Your task to perform on an android device: Open the stopwatch Image 0: 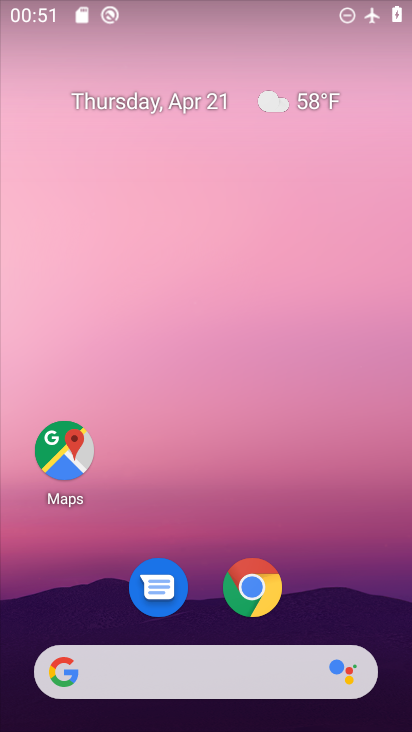
Step 0: drag from (208, 583) to (312, 47)
Your task to perform on an android device: Open the stopwatch Image 1: 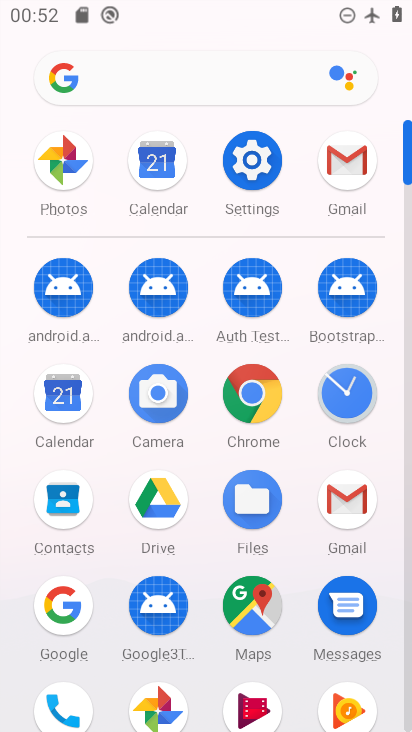
Step 1: click (353, 402)
Your task to perform on an android device: Open the stopwatch Image 2: 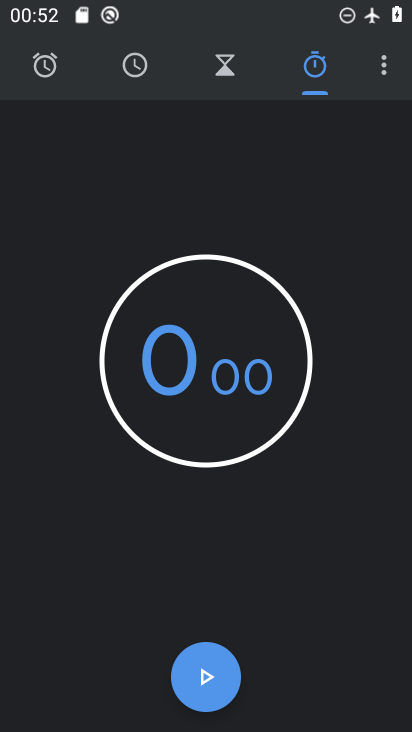
Step 2: click (217, 664)
Your task to perform on an android device: Open the stopwatch Image 3: 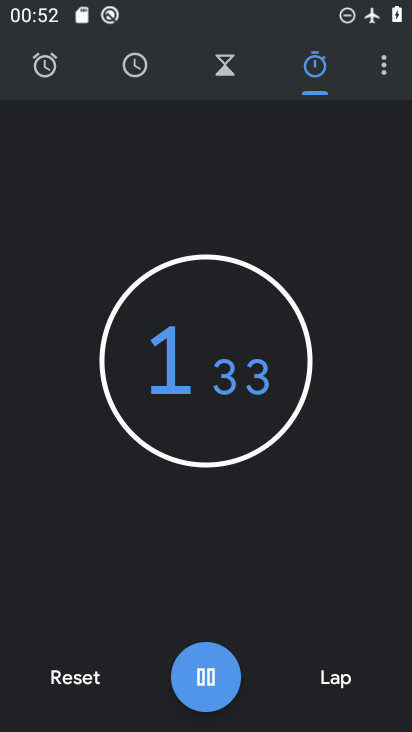
Step 3: task complete